Your task to perform on an android device: Open internet settings Image 0: 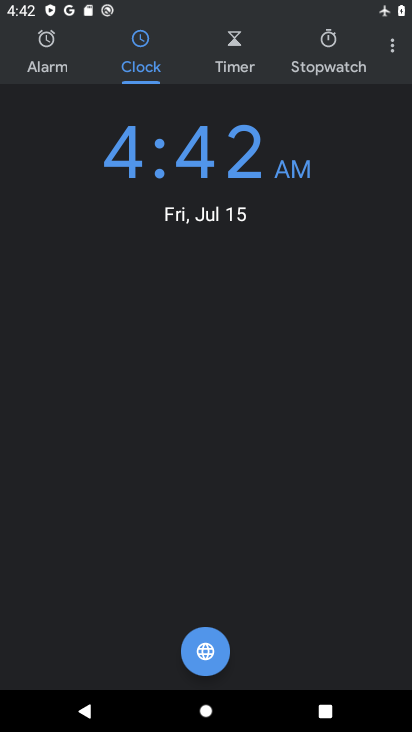
Step 0: press home button
Your task to perform on an android device: Open internet settings Image 1: 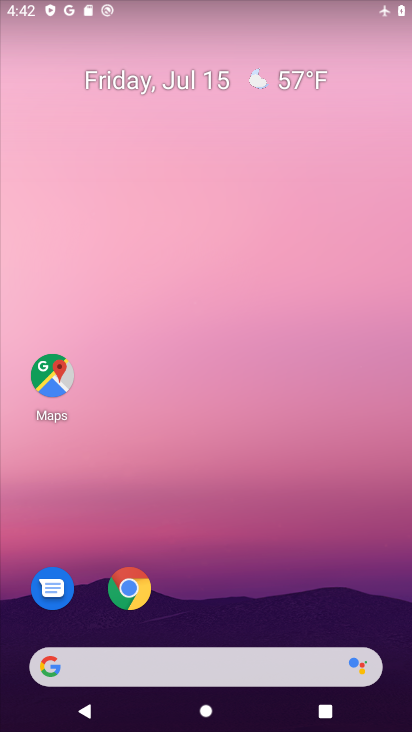
Step 1: drag from (258, 618) to (234, 28)
Your task to perform on an android device: Open internet settings Image 2: 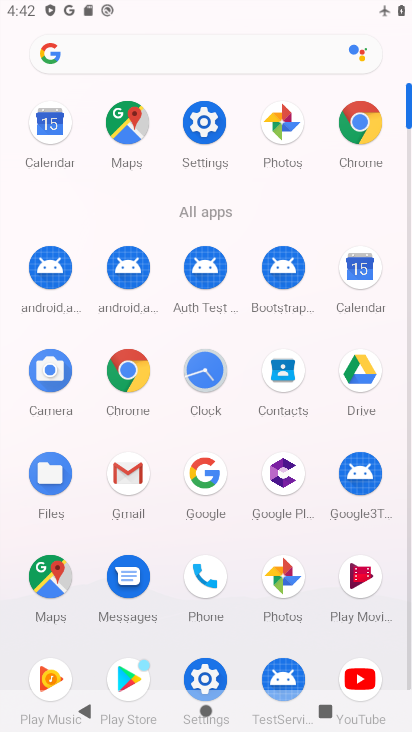
Step 2: click (199, 672)
Your task to perform on an android device: Open internet settings Image 3: 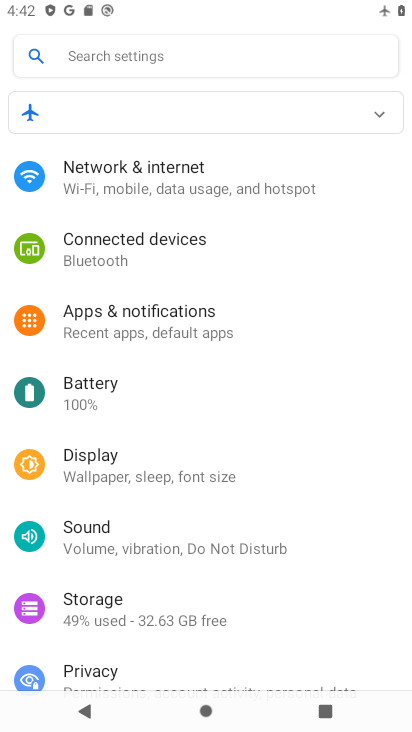
Step 3: click (132, 172)
Your task to perform on an android device: Open internet settings Image 4: 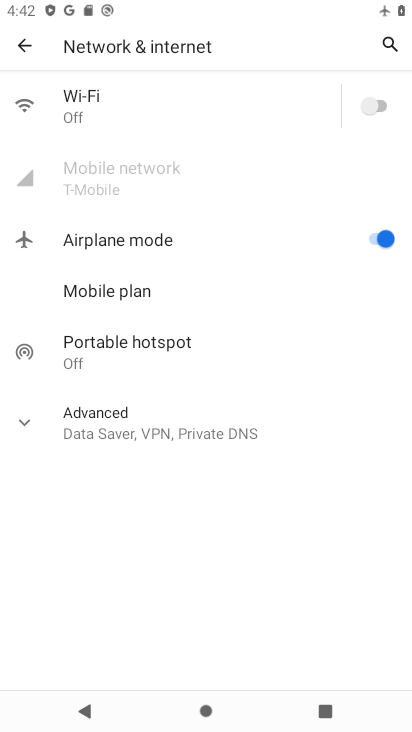
Step 4: task complete